Your task to perform on an android device: toggle data saver in the chrome app Image 0: 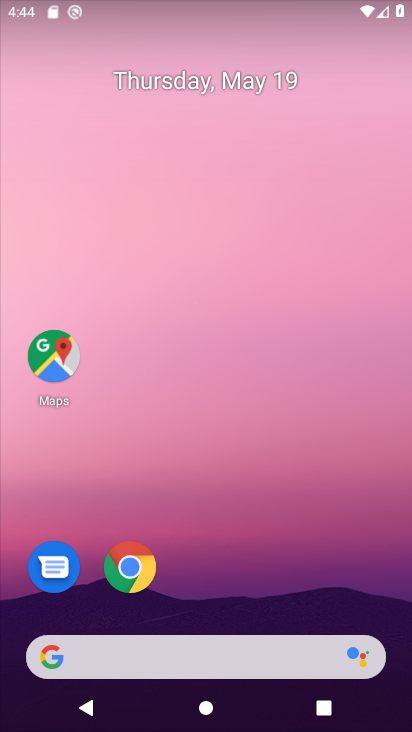
Step 0: click (130, 565)
Your task to perform on an android device: toggle data saver in the chrome app Image 1: 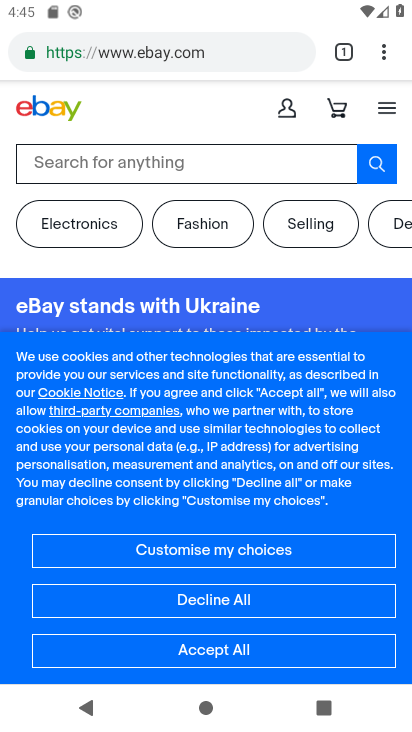
Step 1: click (385, 49)
Your task to perform on an android device: toggle data saver in the chrome app Image 2: 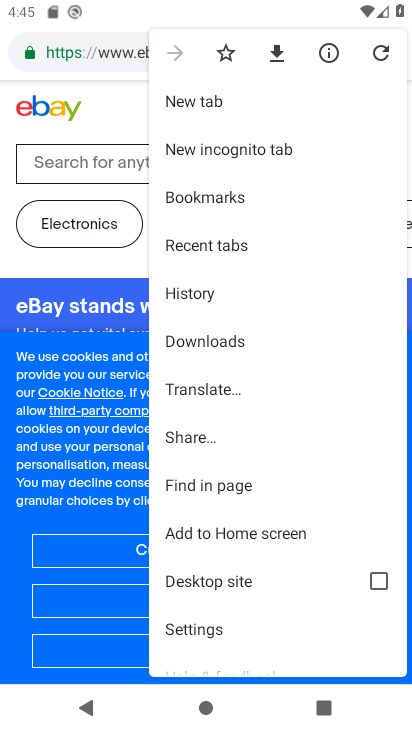
Step 2: click (197, 629)
Your task to perform on an android device: toggle data saver in the chrome app Image 3: 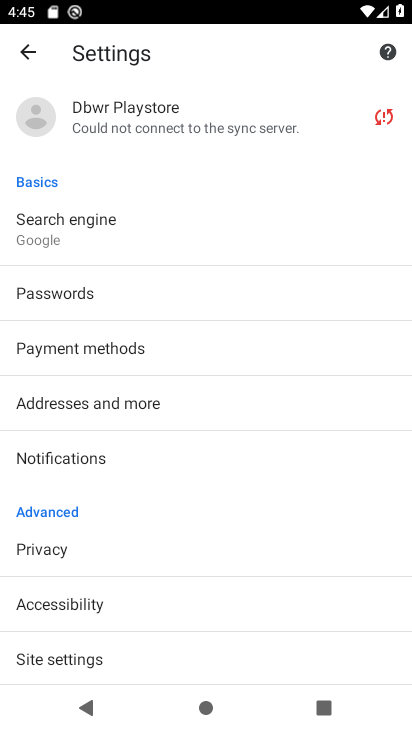
Step 3: drag from (160, 540) to (164, 449)
Your task to perform on an android device: toggle data saver in the chrome app Image 4: 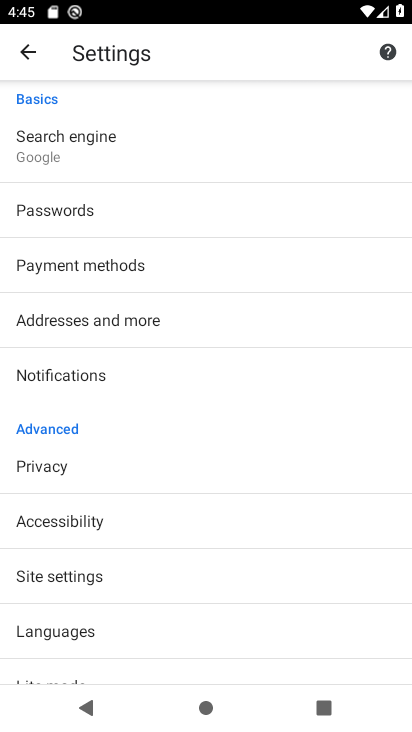
Step 4: drag from (151, 641) to (227, 533)
Your task to perform on an android device: toggle data saver in the chrome app Image 5: 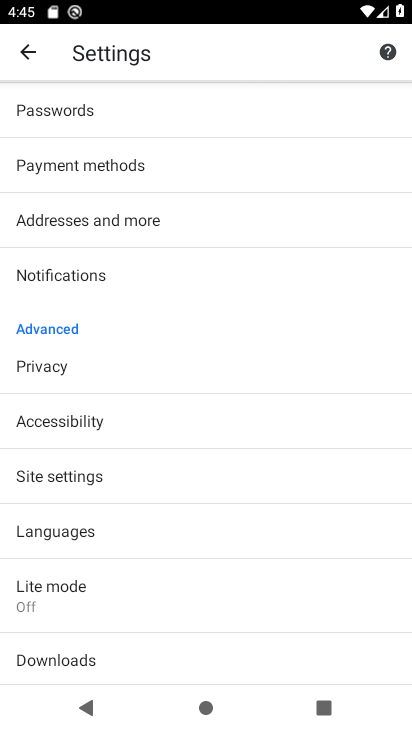
Step 5: click (66, 594)
Your task to perform on an android device: toggle data saver in the chrome app Image 6: 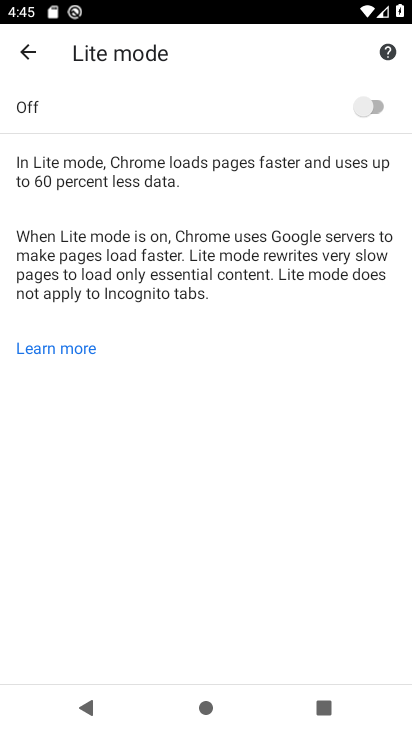
Step 6: click (373, 111)
Your task to perform on an android device: toggle data saver in the chrome app Image 7: 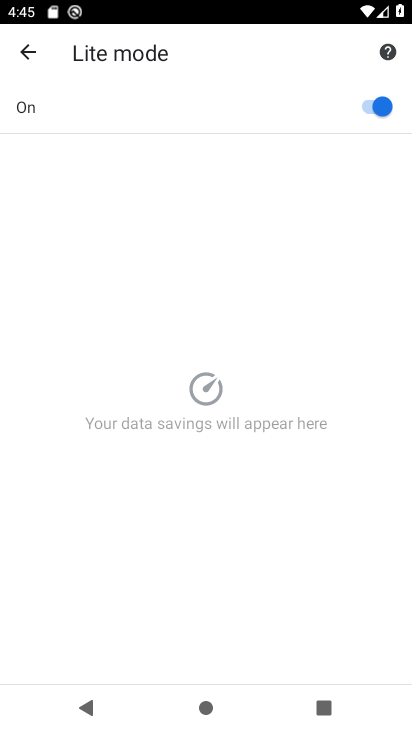
Step 7: task complete